Your task to perform on an android device: toggle priority inbox in the gmail app Image 0: 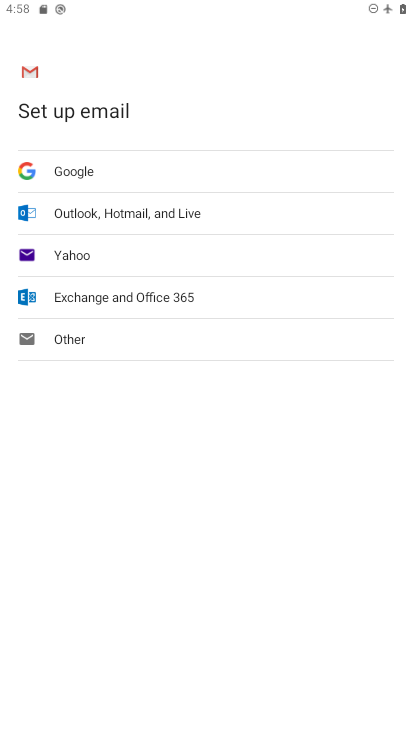
Step 0: press back button
Your task to perform on an android device: toggle priority inbox in the gmail app Image 1: 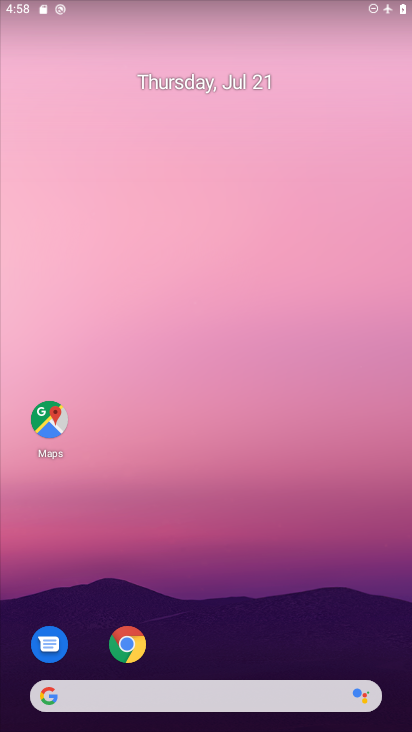
Step 1: drag from (185, 584) to (229, 82)
Your task to perform on an android device: toggle priority inbox in the gmail app Image 2: 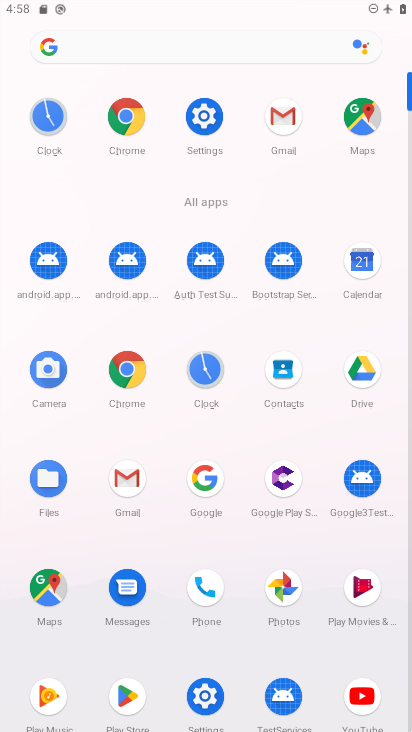
Step 2: click (285, 118)
Your task to perform on an android device: toggle priority inbox in the gmail app Image 3: 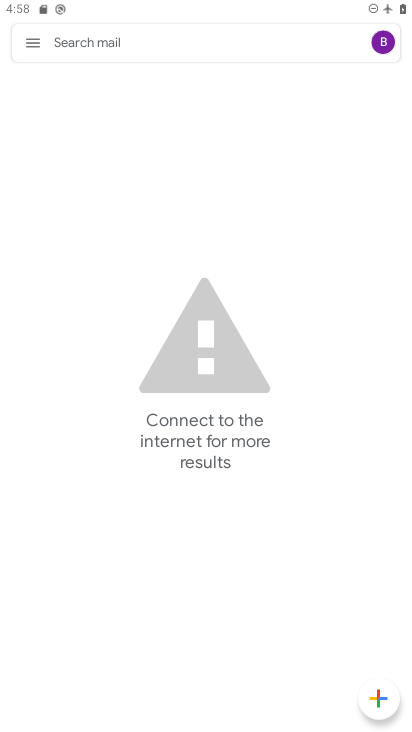
Step 3: click (25, 41)
Your task to perform on an android device: toggle priority inbox in the gmail app Image 4: 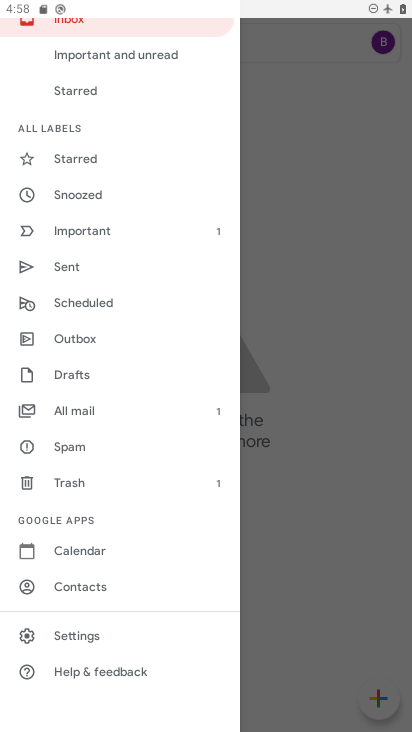
Step 4: click (79, 638)
Your task to perform on an android device: toggle priority inbox in the gmail app Image 5: 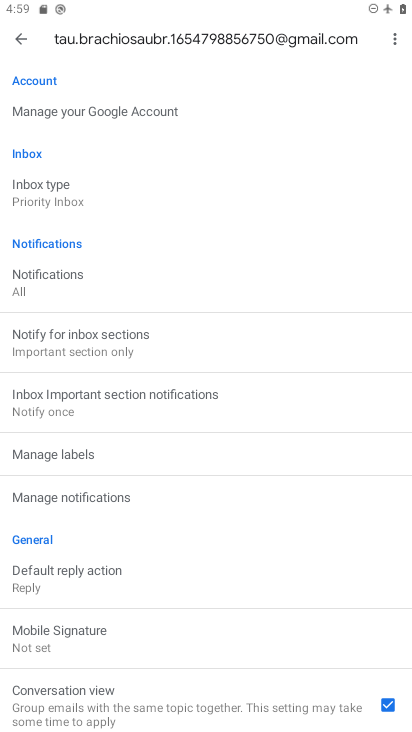
Step 5: click (58, 195)
Your task to perform on an android device: toggle priority inbox in the gmail app Image 6: 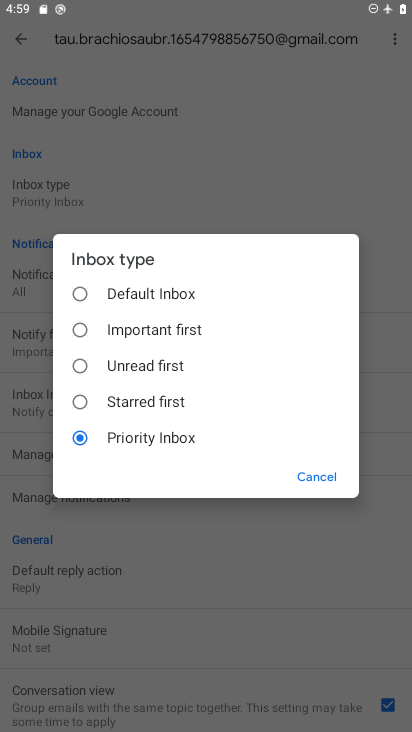
Step 6: click (82, 291)
Your task to perform on an android device: toggle priority inbox in the gmail app Image 7: 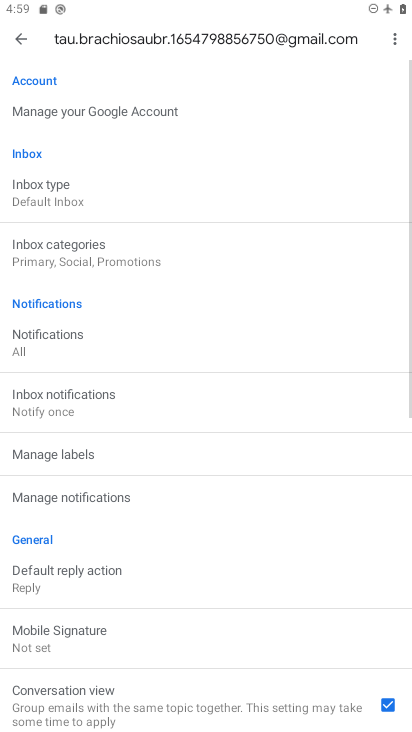
Step 7: task complete